Your task to perform on an android device: Open my contact list Image 0: 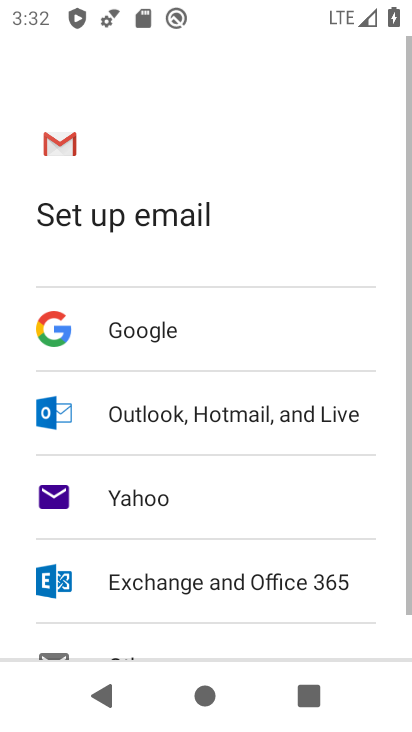
Step 0: press home button
Your task to perform on an android device: Open my contact list Image 1: 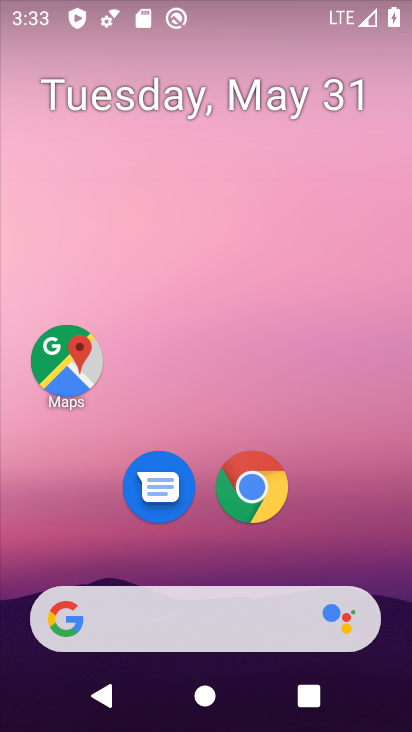
Step 1: drag from (342, 535) to (212, 77)
Your task to perform on an android device: Open my contact list Image 2: 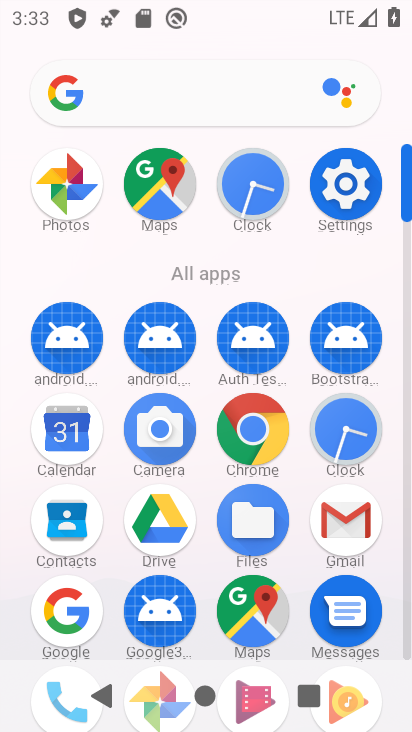
Step 2: click (404, 650)
Your task to perform on an android device: Open my contact list Image 3: 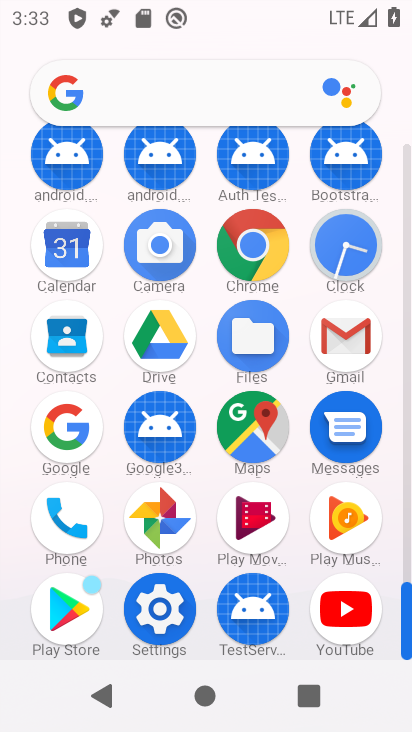
Step 3: click (70, 355)
Your task to perform on an android device: Open my contact list Image 4: 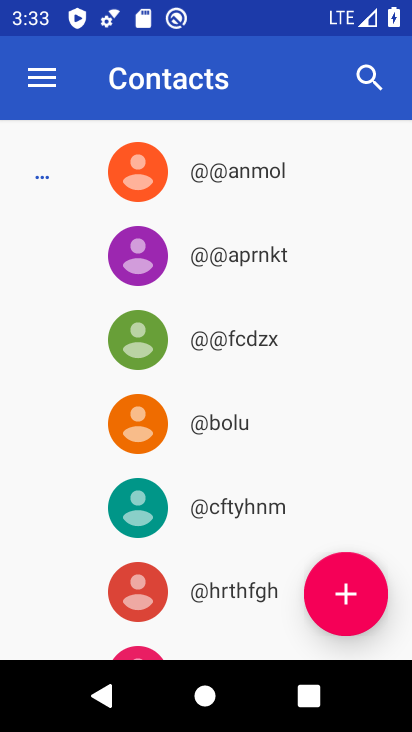
Step 4: task complete